Your task to perform on an android device: Open the phone app and click the voicemail tab. Image 0: 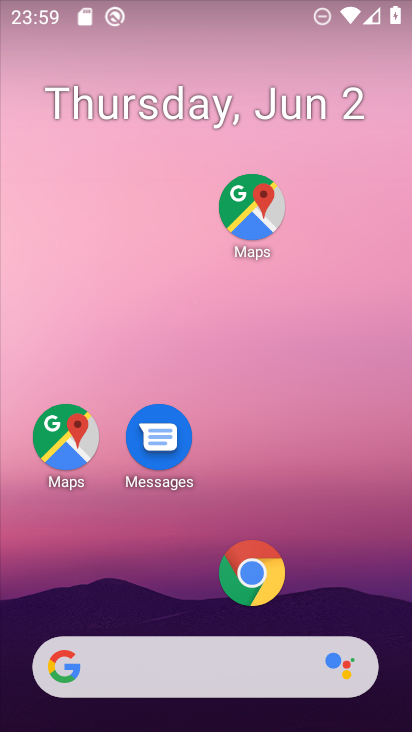
Step 0: drag from (355, 583) to (339, 117)
Your task to perform on an android device: Open the phone app and click the voicemail tab. Image 1: 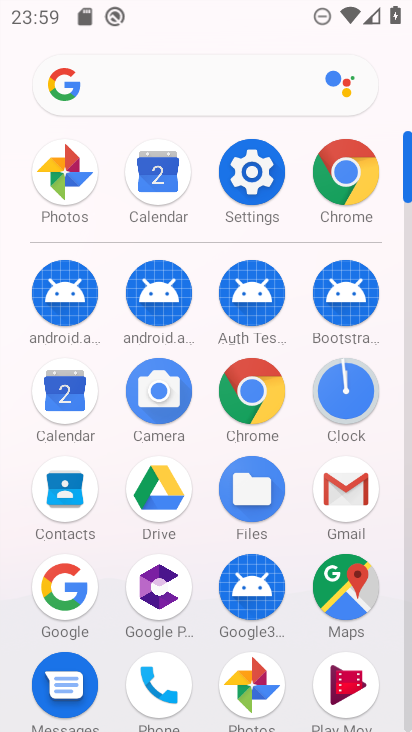
Step 1: click (287, 704)
Your task to perform on an android device: Open the phone app and click the voicemail tab. Image 2: 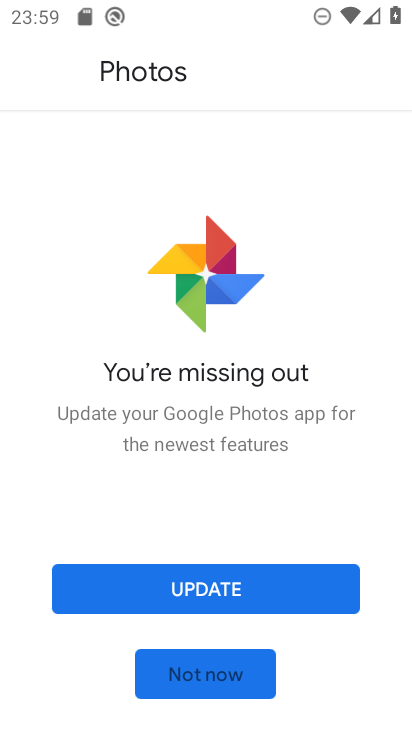
Step 2: click (152, 670)
Your task to perform on an android device: Open the phone app and click the voicemail tab. Image 3: 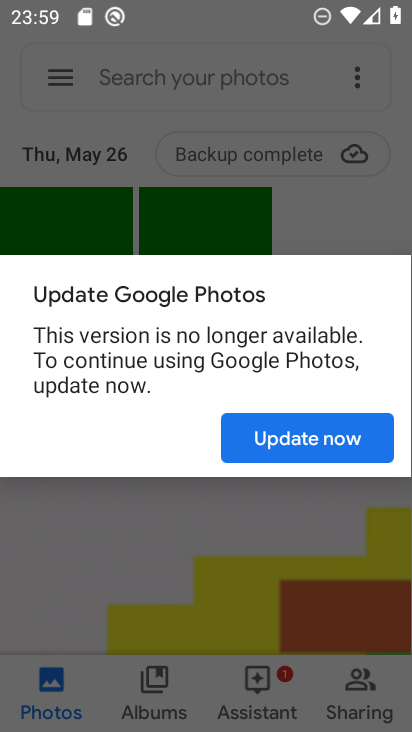
Step 3: press home button
Your task to perform on an android device: Open the phone app and click the voicemail tab. Image 4: 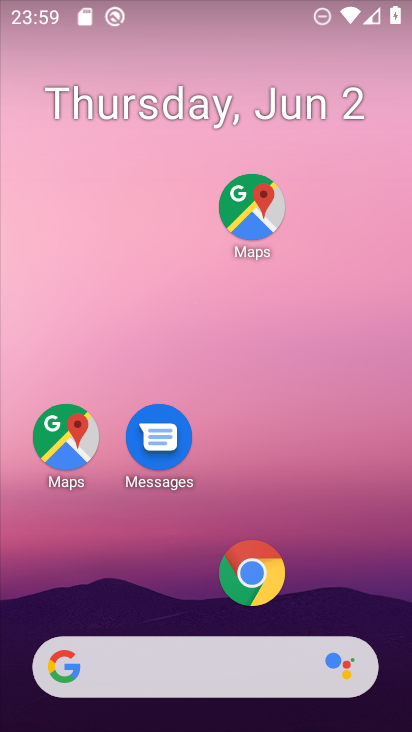
Step 4: drag from (95, 618) to (70, 40)
Your task to perform on an android device: Open the phone app and click the voicemail tab. Image 5: 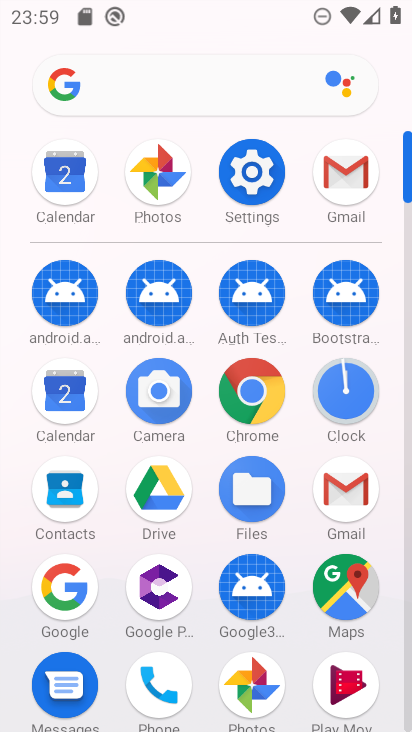
Step 5: click (148, 667)
Your task to perform on an android device: Open the phone app and click the voicemail tab. Image 6: 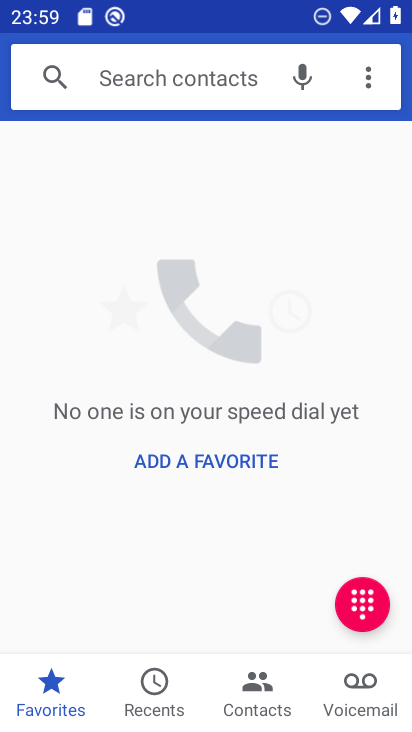
Step 6: click (361, 695)
Your task to perform on an android device: Open the phone app and click the voicemail tab. Image 7: 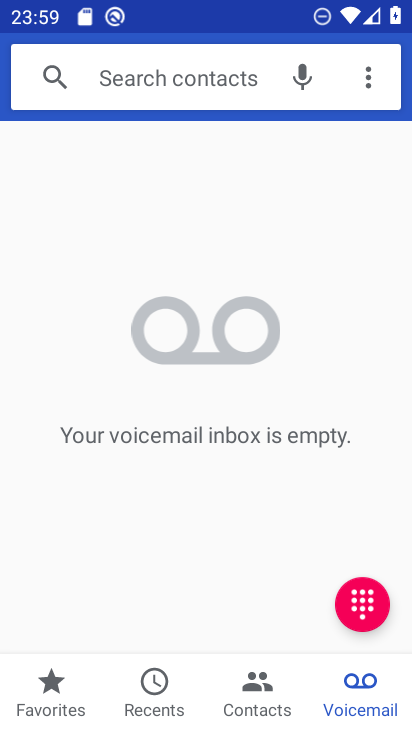
Step 7: task complete